Your task to perform on an android device: read, delete, or share a saved page in the chrome app Image 0: 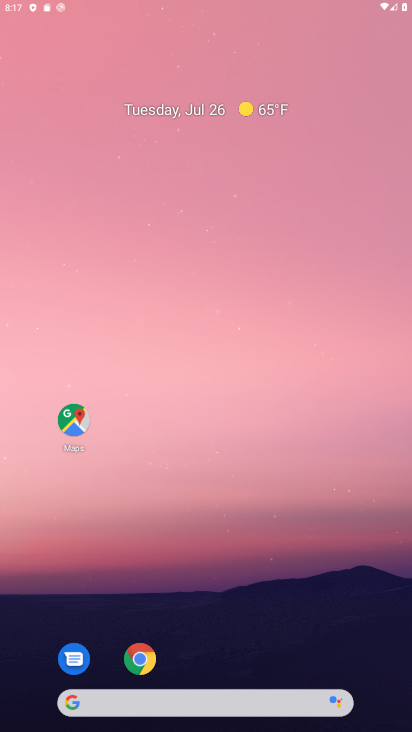
Step 0: click (142, 663)
Your task to perform on an android device: read, delete, or share a saved page in the chrome app Image 1: 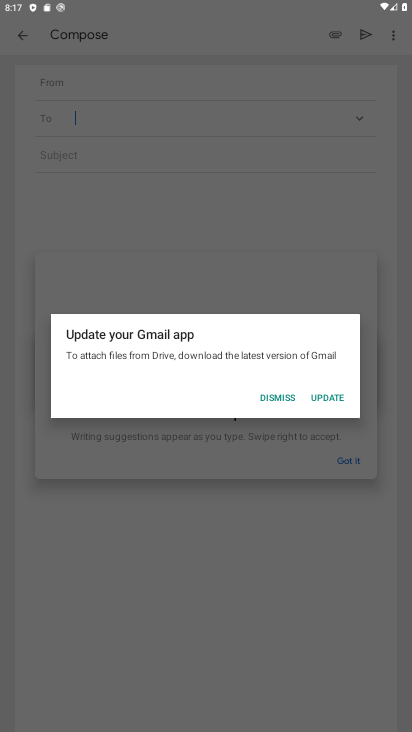
Step 1: click (336, 382)
Your task to perform on an android device: read, delete, or share a saved page in the chrome app Image 2: 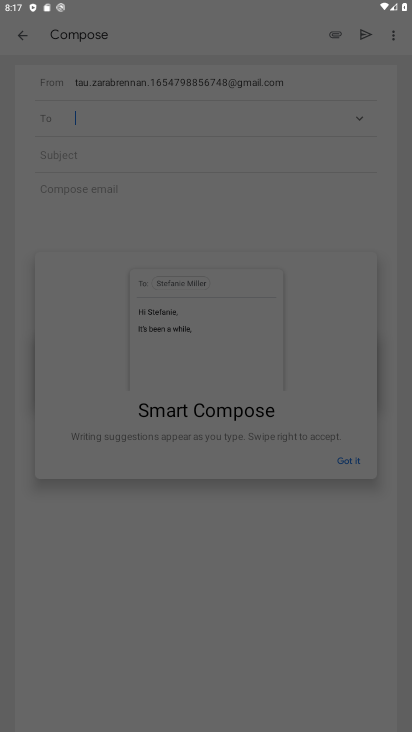
Step 2: click (291, 399)
Your task to perform on an android device: read, delete, or share a saved page in the chrome app Image 3: 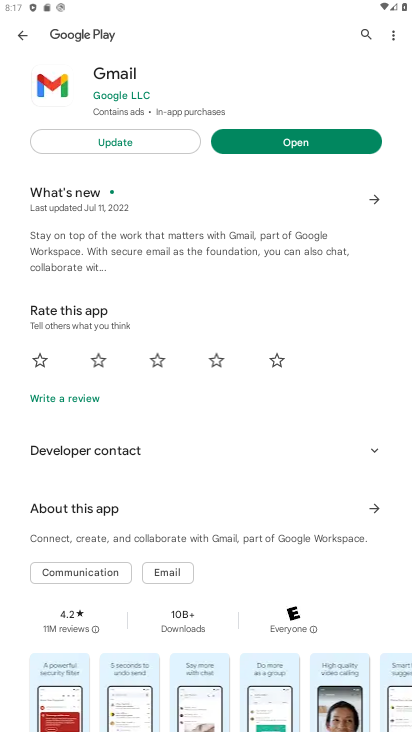
Step 3: click (393, 37)
Your task to perform on an android device: read, delete, or share a saved page in the chrome app Image 4: 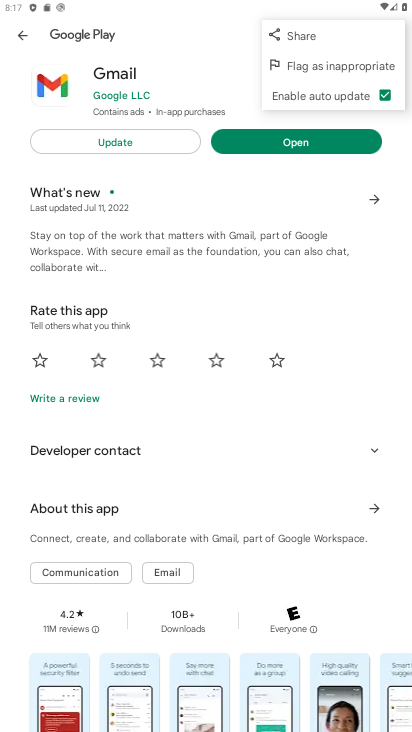
Step 4: press home button
Your task to perform on an android device: read, delete, or share a saved page in the chrome app Image 5: 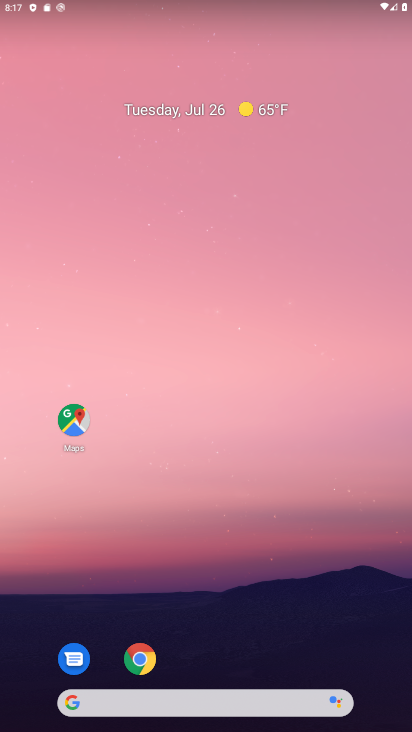
Step 5: click (149, 663)
Your task to perform on an android device: read, delete, or share a saved page in the chrome app Image 6: 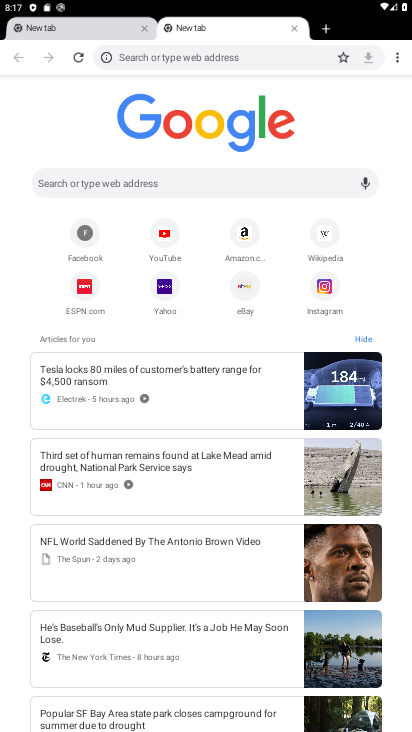
Step 6: click (398, 64)
Your task to perform on an android device: read, delete, or share a saved page in the chrome app Image 7: 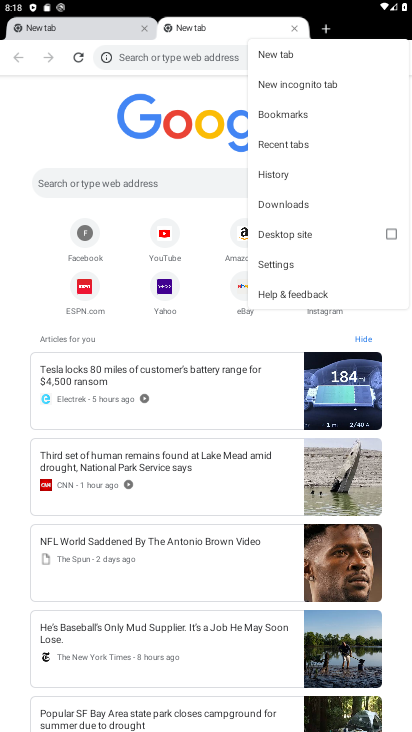
Step 7: click (274, 262)
Your task to perform on an android device: read, delete, or share a saved page in the chrome app Image 8: 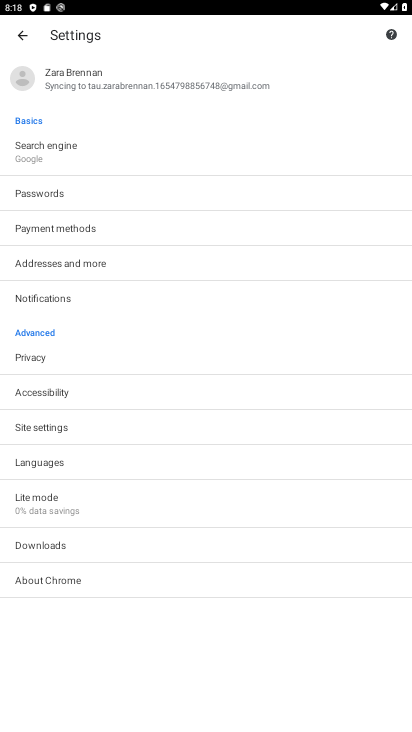
Step 8: task complete